Your task to perform on an android device: What is the recent news? Image 0: 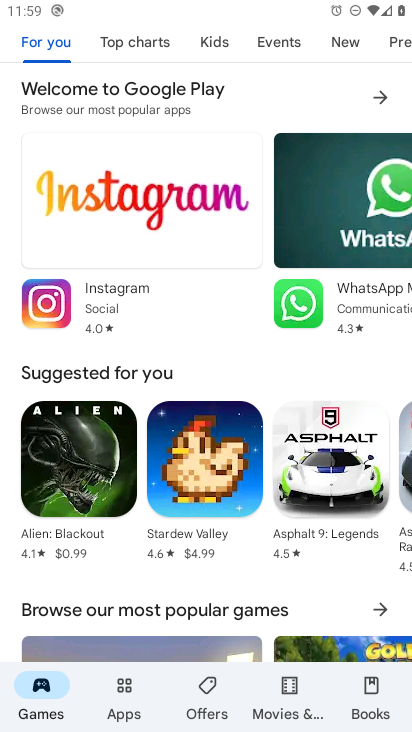
Step 0: press home button
Your task to perform on an android device: What is the recent news? Image 1: 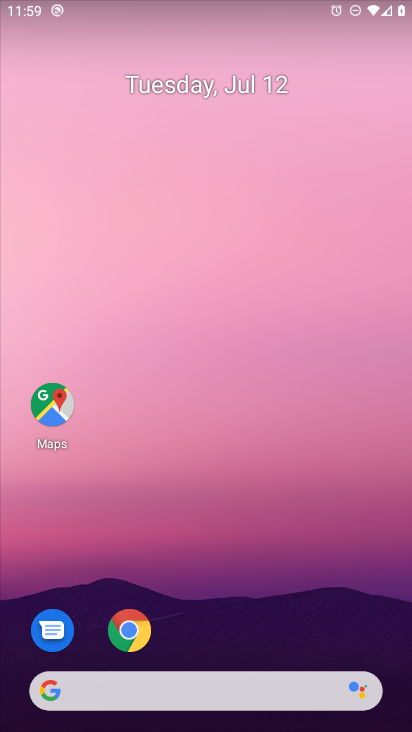
Step 1: drag from (254, 599) to (245, 44)
Your task to perform on an android device: What is the recent news? Image 2: 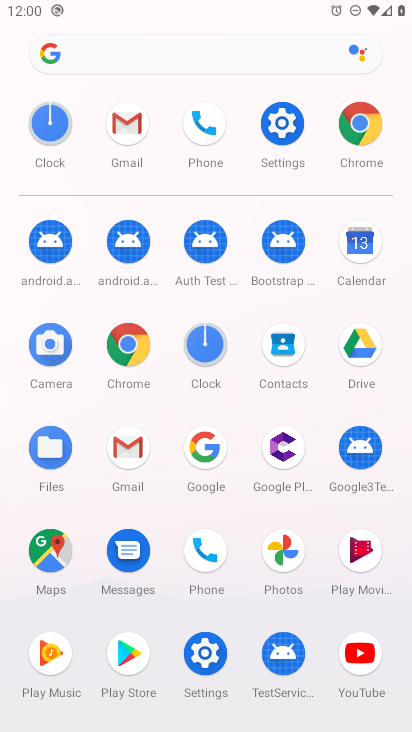
Step 2: click (215, 455)
Your task to perform on an android device: What is the recent news? Image 3: 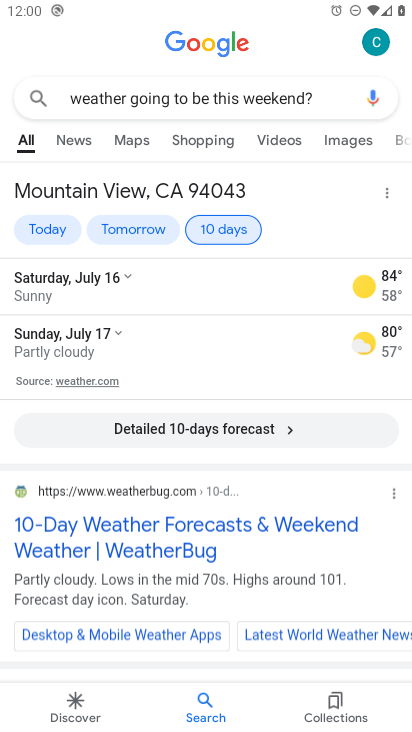
Step 3: click (341, 96)
Your task to perform on an android device: What is the recent news? Image 4: 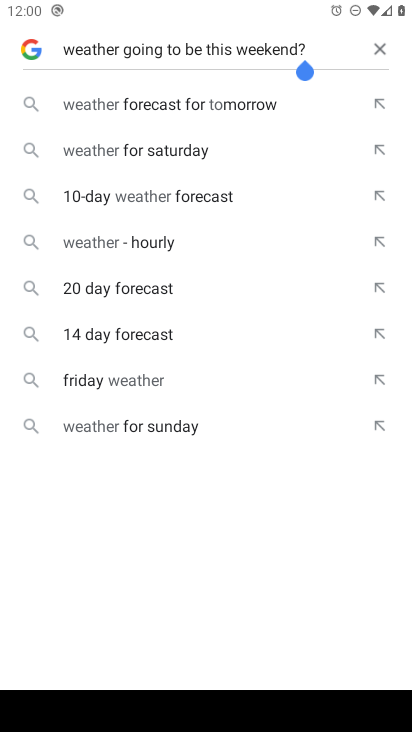
Step 4: click (383, 47)
Your task to perform on an android device: What is the recent news? Image 5: 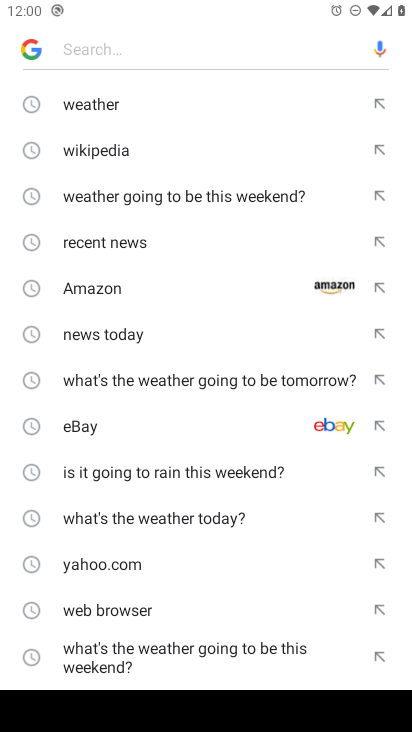
Step 5: type "recent news"
Your task to perform on an android device: What is the recent news? Image 6: 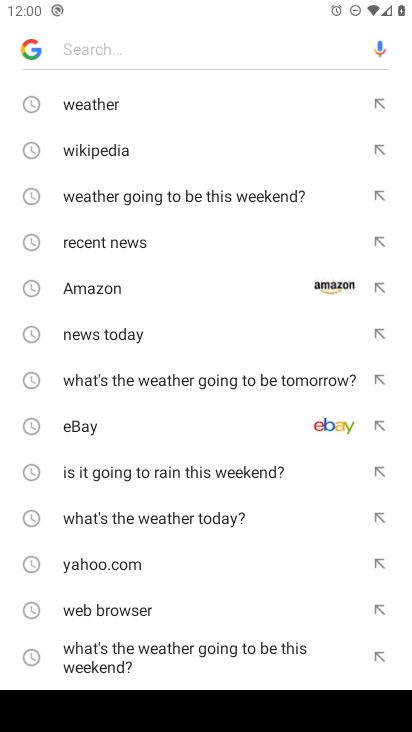
Step 6: click (117, 49)
Your task to perform on an android device: What is the recent news? Image 7: 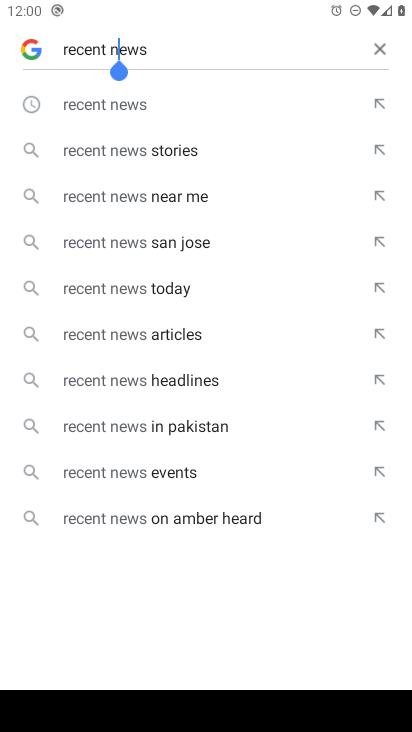
Step 7: press enter
Your task to perform on an android device: What is the recent news? Image 8: 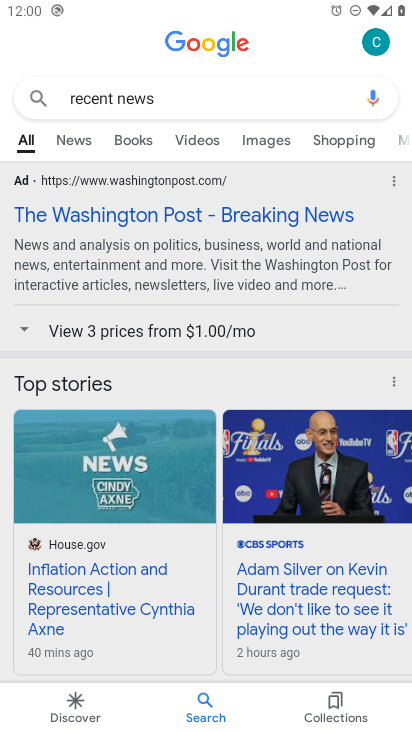
Step 8: task complete